Your task to perform on an android device: find photos in the google photos app Image 0: 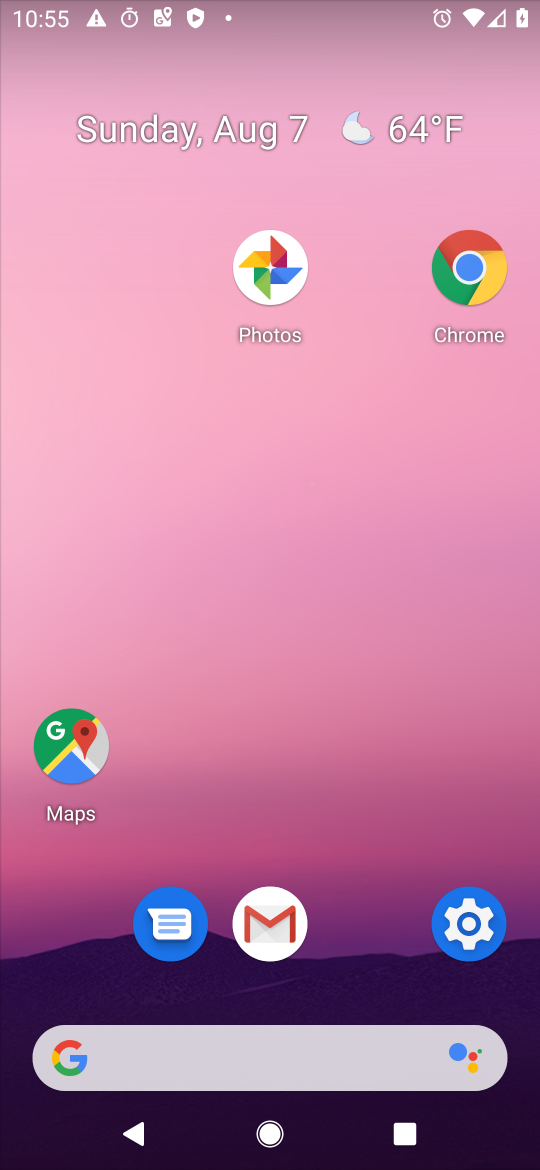
Step 0: press home button
Your task to perform on an android device: find photos in the google photos app Image 1: 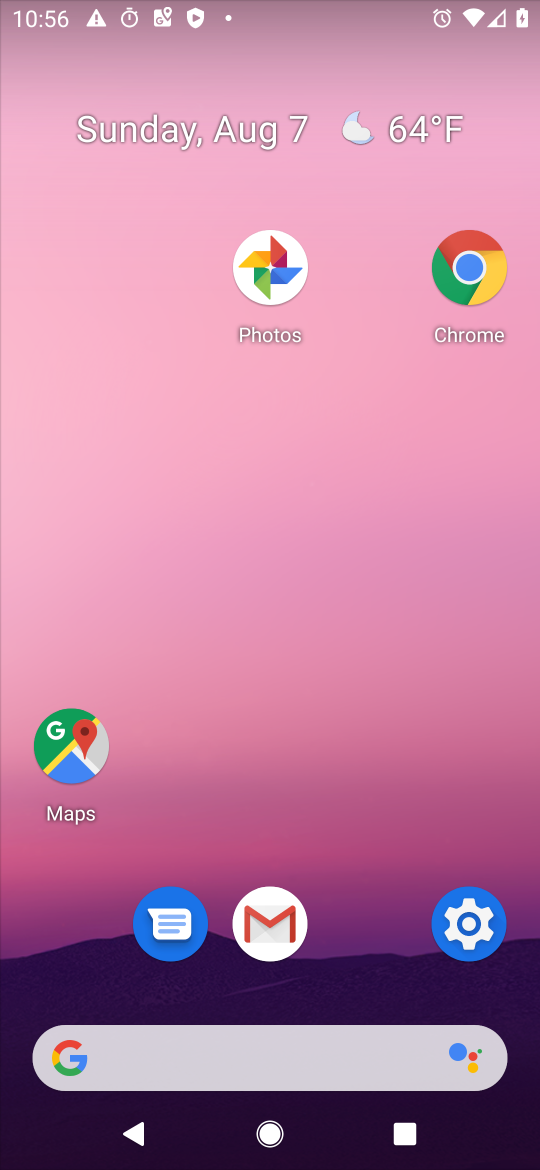
Step 1: click (256, 262)
Your task to perform on an android device: find photos in the google photos app Image 2: 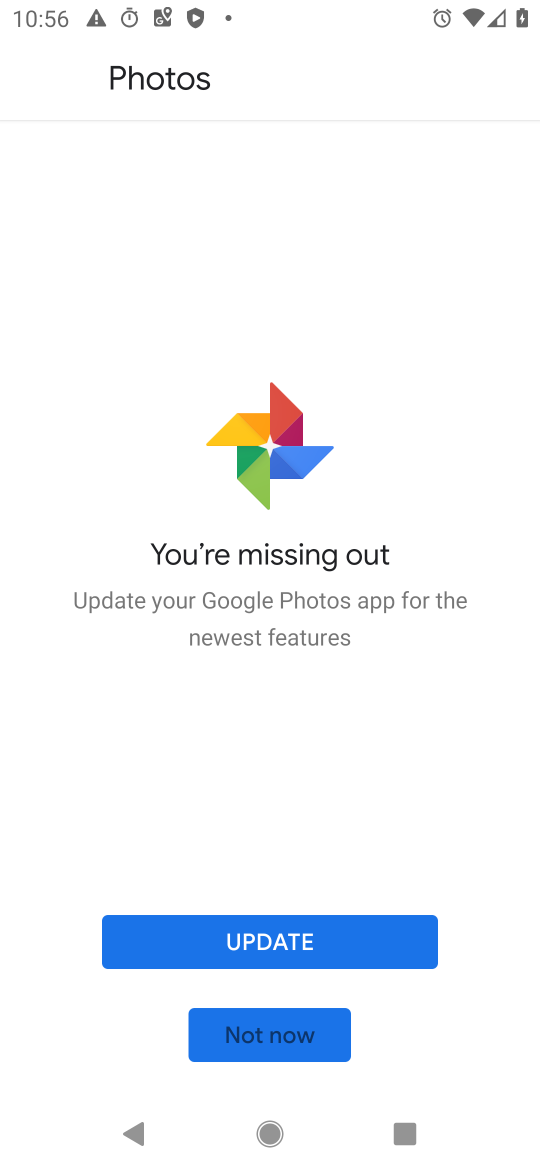
Step 2: click (273, 927)
Your task to perform on an android device: find photos in the google photos app Image 3: 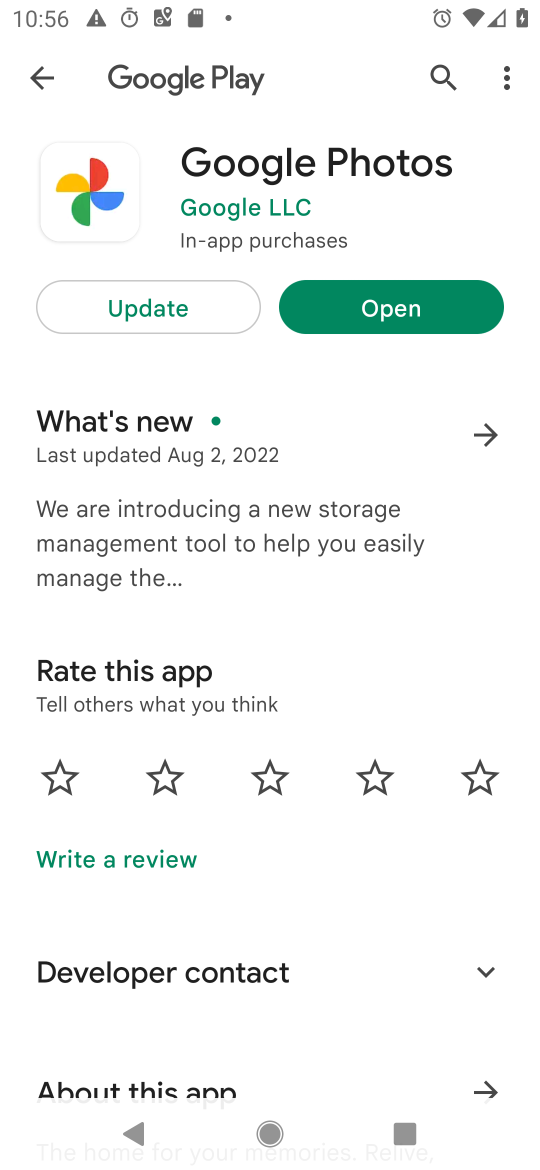
Step 3: click (156, 305)
Your task to perform on an android device: find photos in the google photos app Image 4: 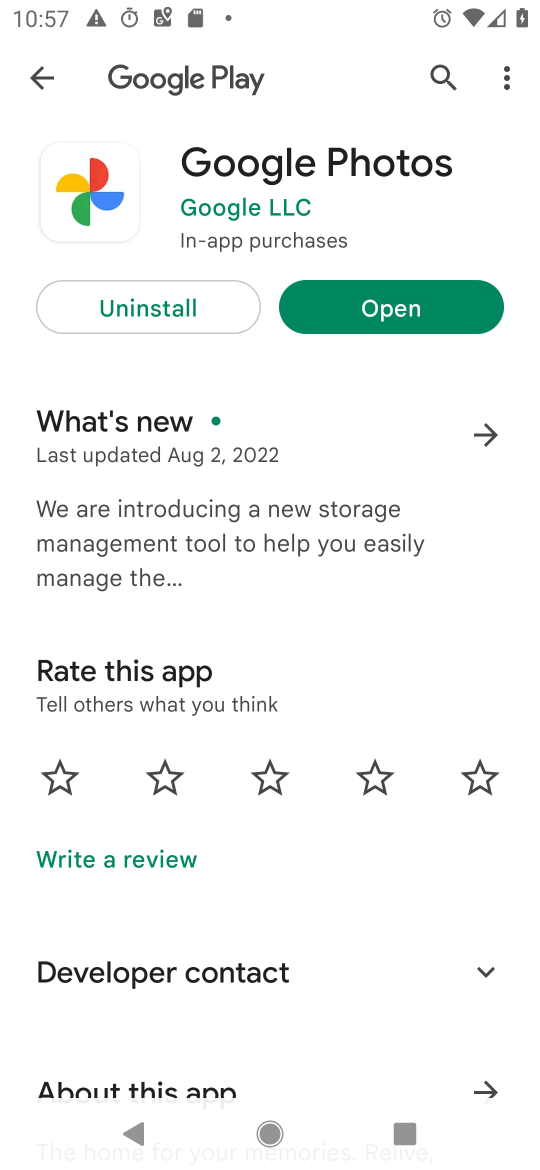
Step 4: click (442, 301)
Your task to perform on an android device: find photos in the google photos app Image 5: 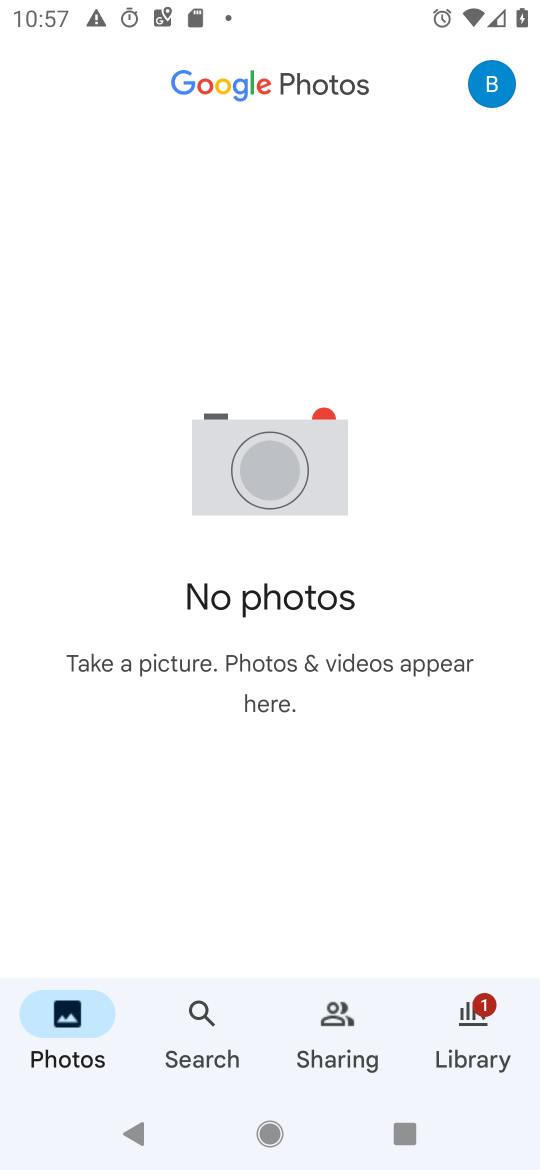
Step 5: task complete